Your task to perform on an android device: Open notification settings Image 0: 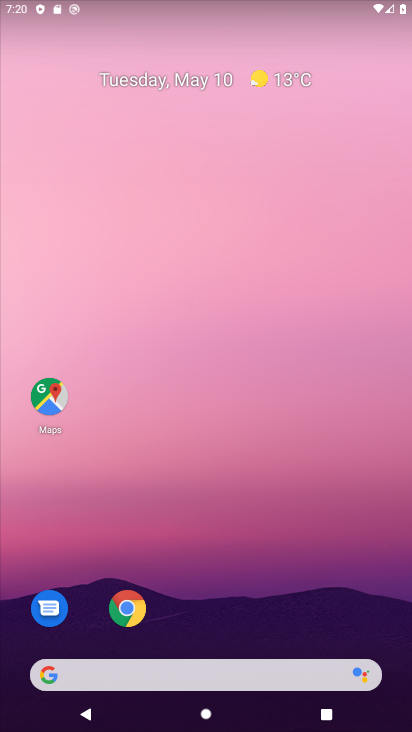
Step 0: drag from (241, 570) to (252, 141)
Your task to perform on an android device: Open notification settings Image 1: 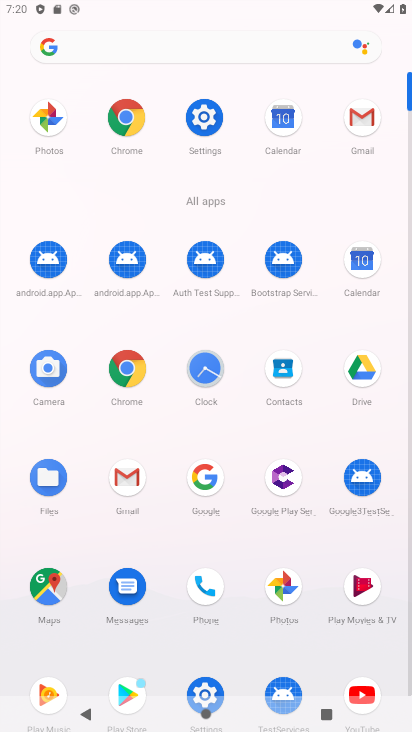
Step 1: click (210, 144)
Your task to perform on an android device: Open notification settings Image 2: 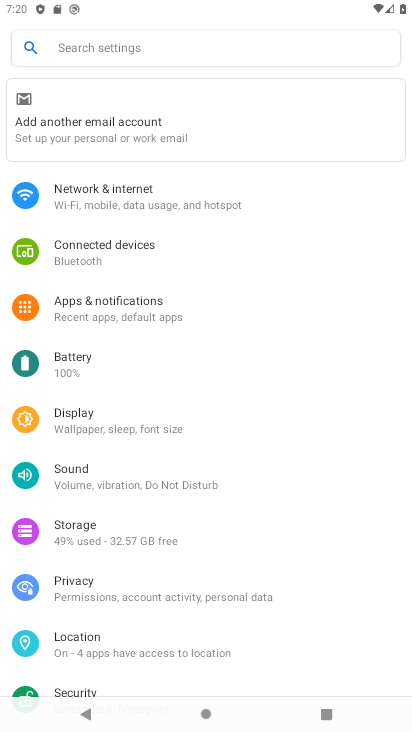
Step 2: click (117, 333)
Your task to perform on an android device: Open notification settings Image 3: 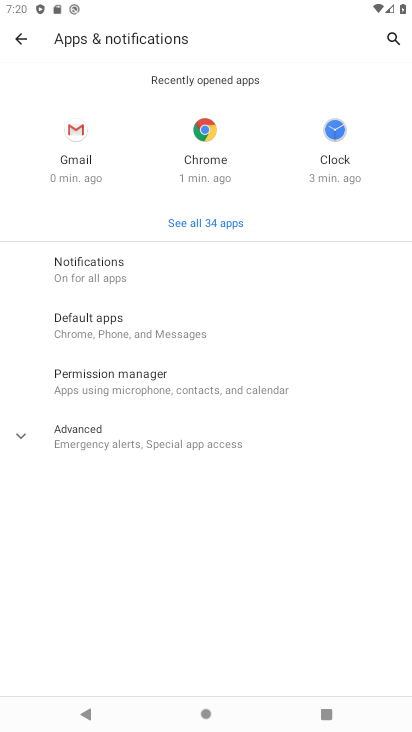
Step 3: click (117, 284)
Your task to perform on an android device: Open notification settings Image 4: 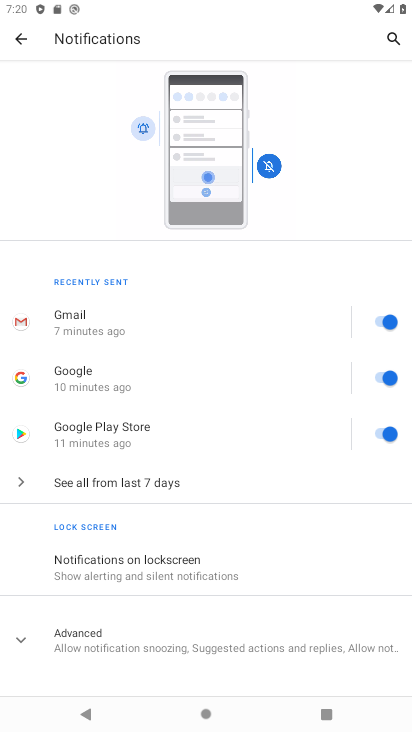
Step 4: task complete